Your task to perform on an android device: Do I have any events this weekend? Image 0: 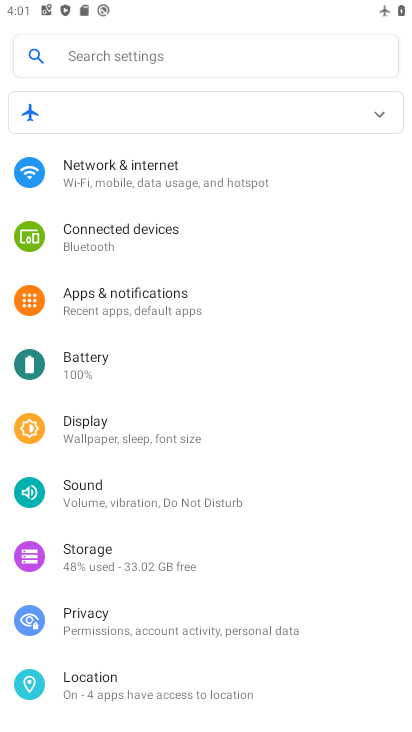
Step 0: press home button
Your task to perform on an android device: Do I have any events this weekend? Image 1: 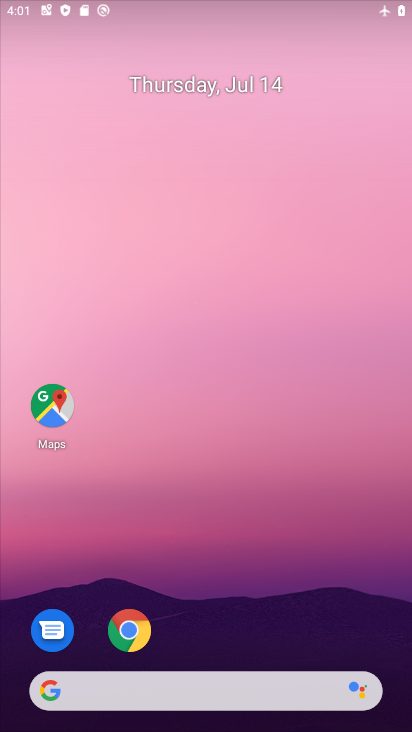
Step 1: drag from (255, 689) to (274, 35)
Your task to perform on an android device: Do I have any events this weekend? Image 2: 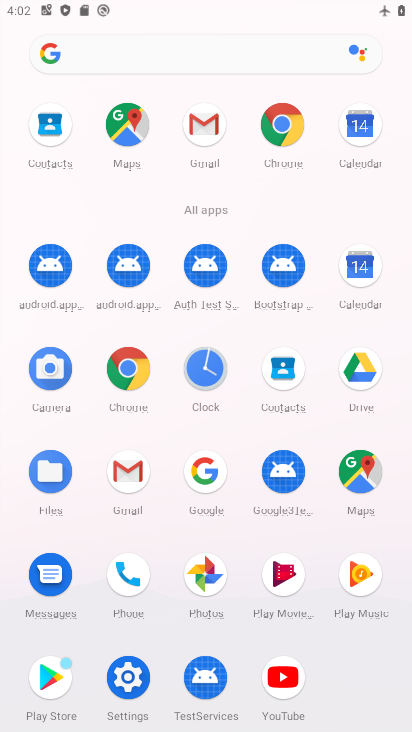
Step 2: click (365, 272)
Your task to perform on an android device: Do I have any events this weekend? Image 3: 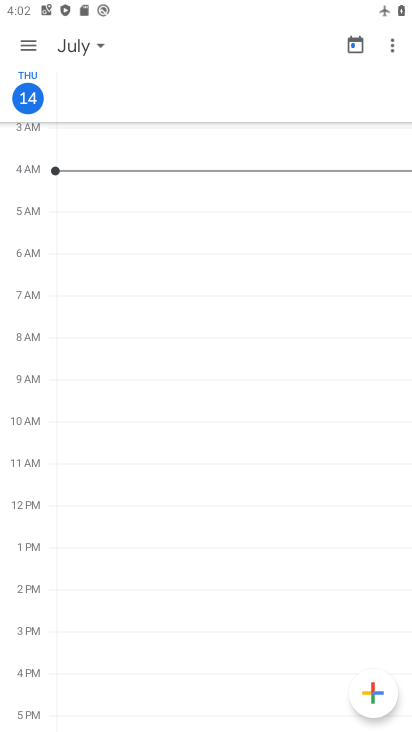
Step 3: click (99, 45)
Your task to perform on an android device: Do I have any events this weekend? Image 4: 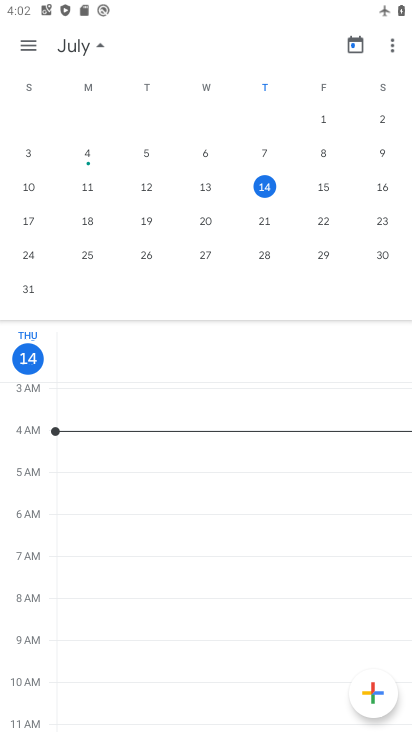
Step 4: click (374, 185)
Your task to perform on an android device: Do I have any events this weekend? Image 5: 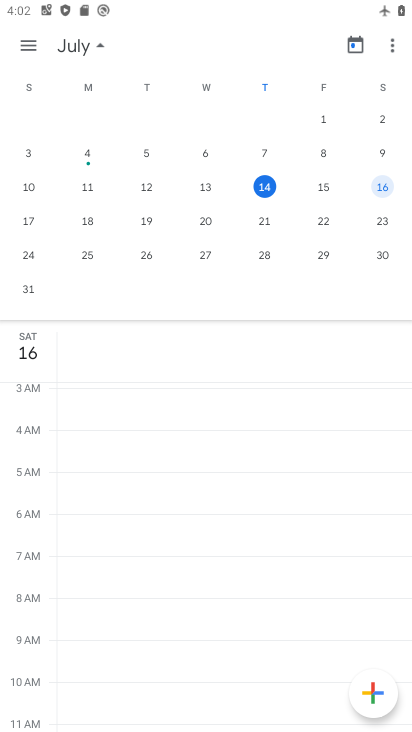
Step 5: task complete